Your task to perform on an android device: What's on the menu at Pizza Hut? Image 0: 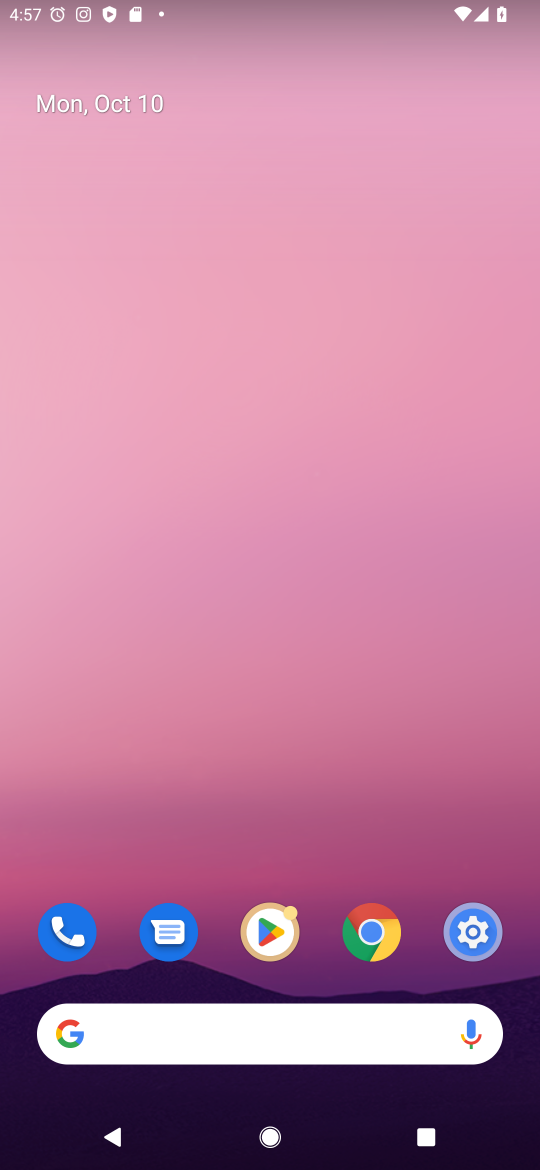
Step 0: press home button
Your task to perform on an android device: What's on the menu at Pizza Hut? Image 1: 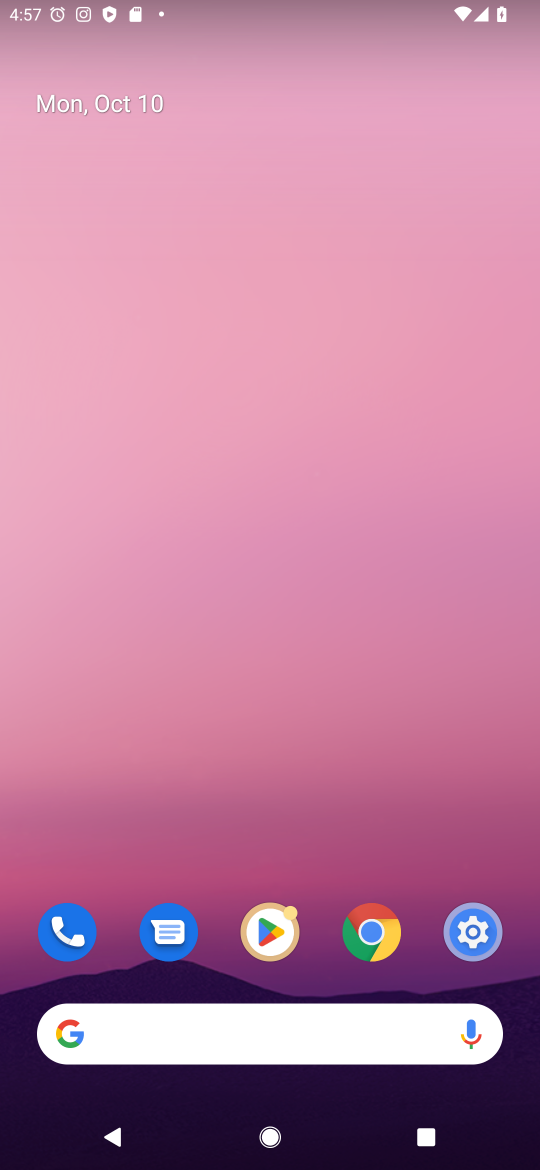
Step 1: click (272, 1036)
Your task to perform on an android device: What's on the menu at Pizza Hut? Image 2: 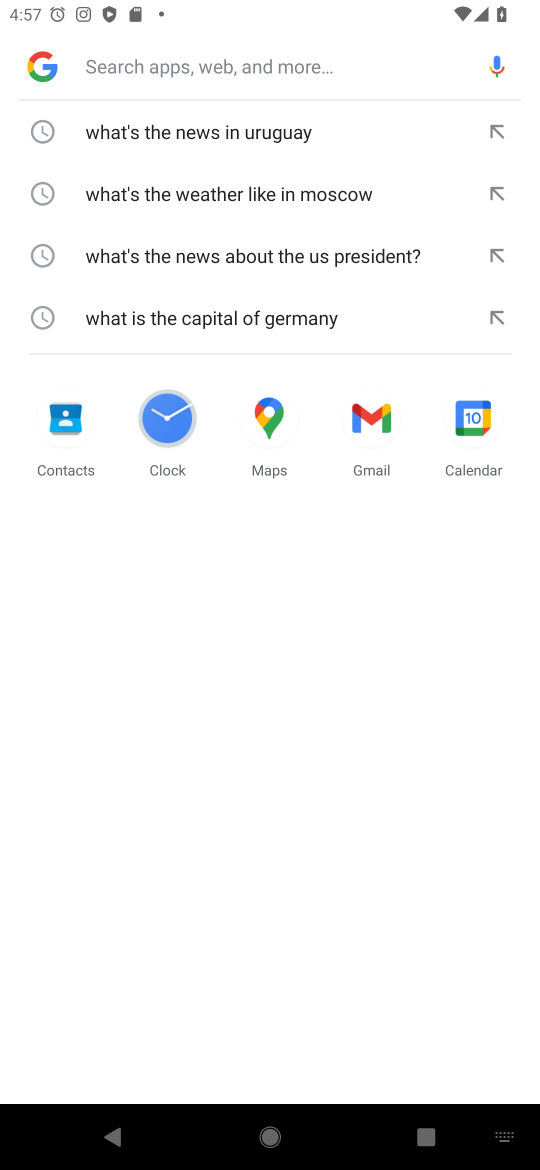
Step 2: type "What's on the menu at Pizza Hut"
Your task to perform on an android device: What's on the menu at Pizza Hut? Image 3: 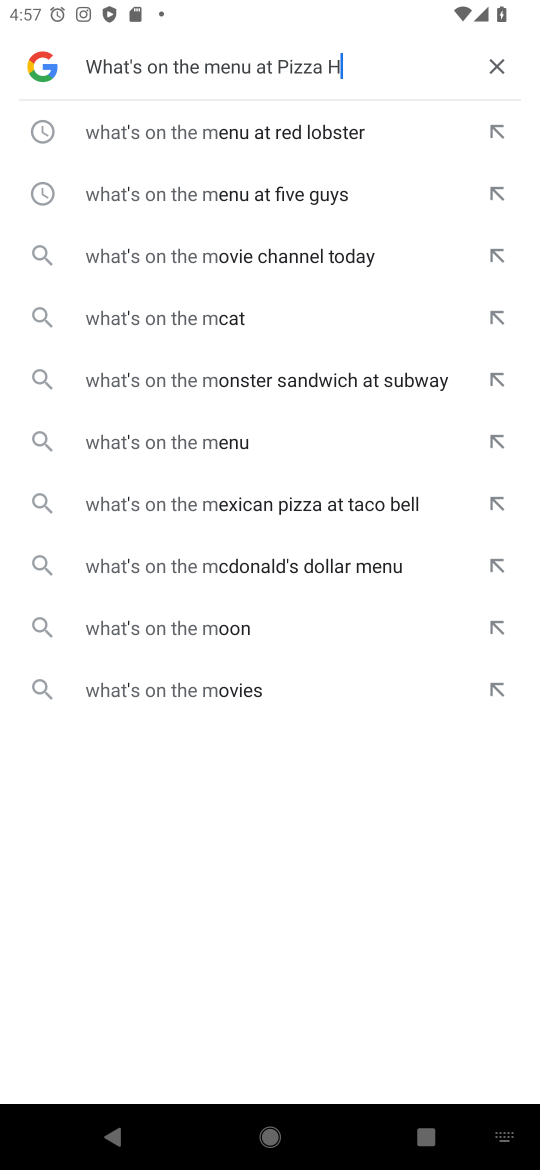
Step 3: press enter
Your task to perform on an android device: What's on the menu at Pizza Hut? Image 4: 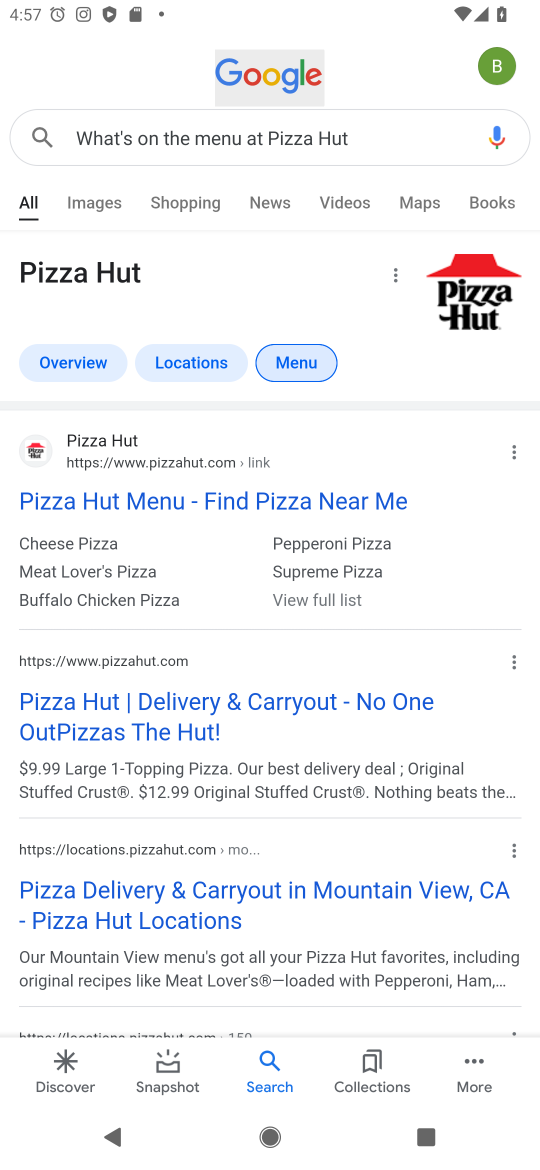
Step 4: click (145, 505)
Your task to perform on an android device: What's on the menu at Pizza Hut? Image 5: 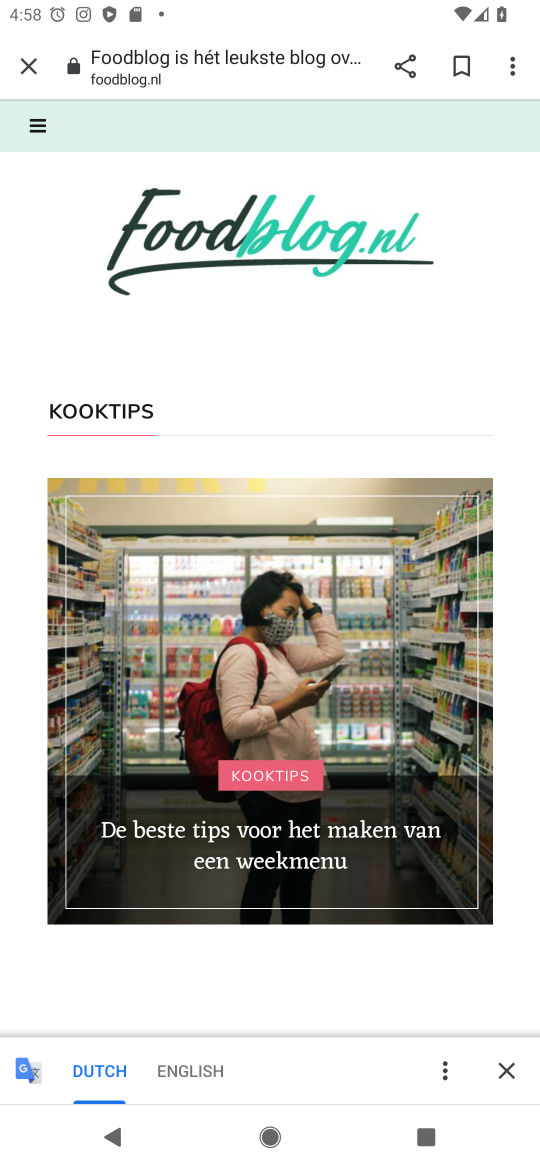
Step 5: drag from (4, 716) to (20, 330)
Your task to perform on an android device: What's on the menu at Pizza Hut? Image 6: 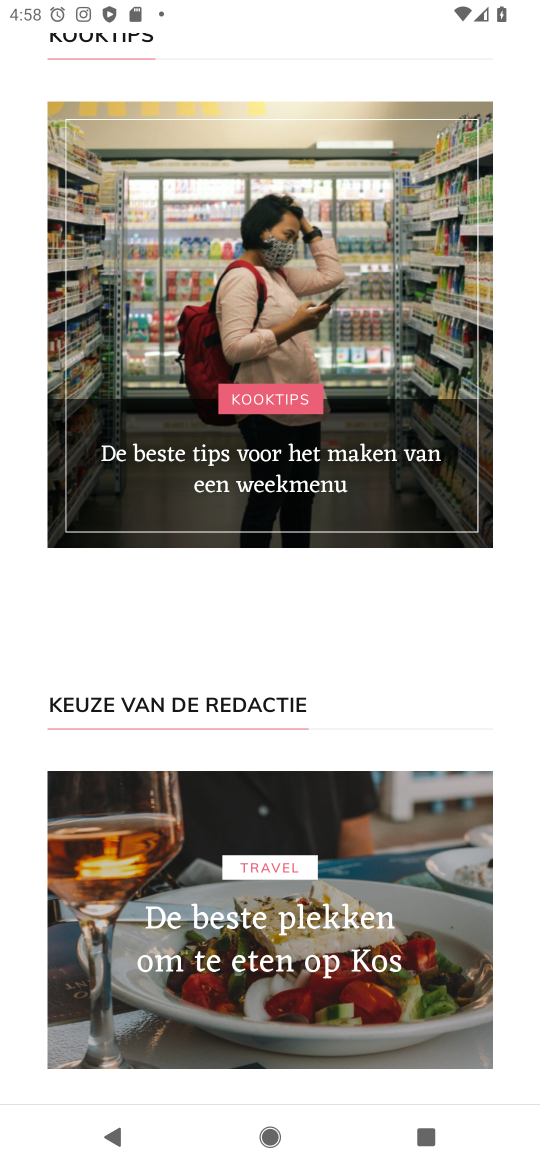
Step 6: drag from (22, 863) to (37, 352)
Your task to perform on an android device: What's on the menu at Pizza Hut? Image 7: 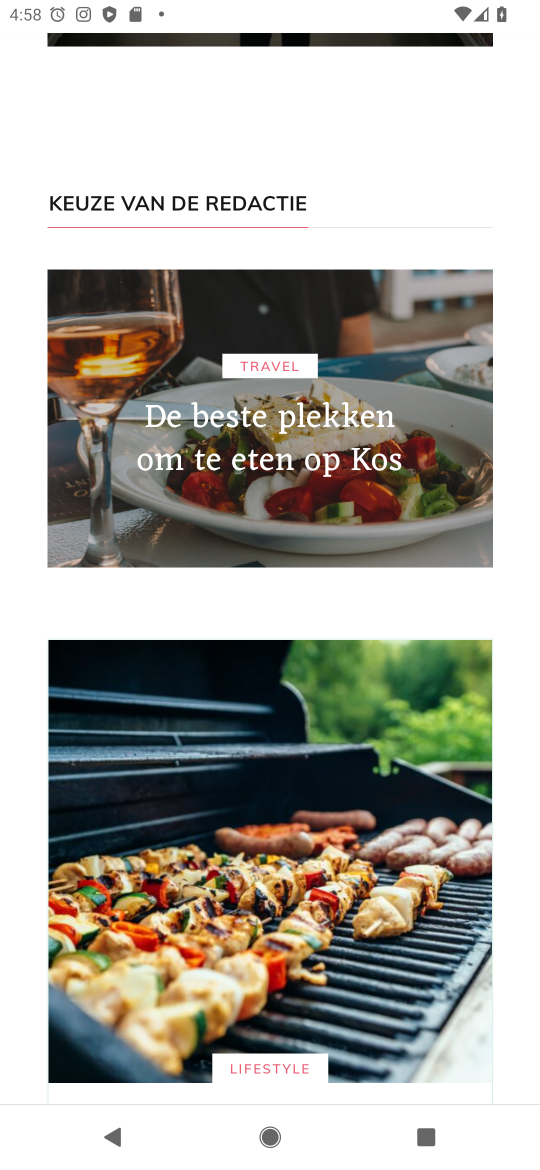
Step 7: drag from (9, 822) to (41, 378)
Your task to perform on an android device: What's on the menu at Pizza Hut? Image 8: 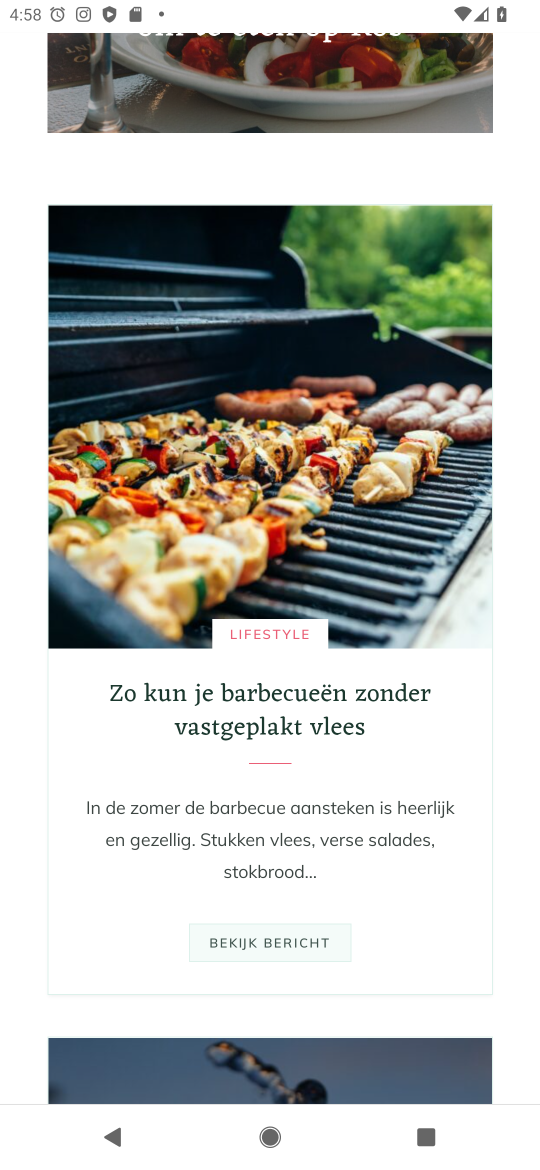
Step 8: press back button
Your task to perform on an android device: What's on the menu at Pizza Hut? Image 9: 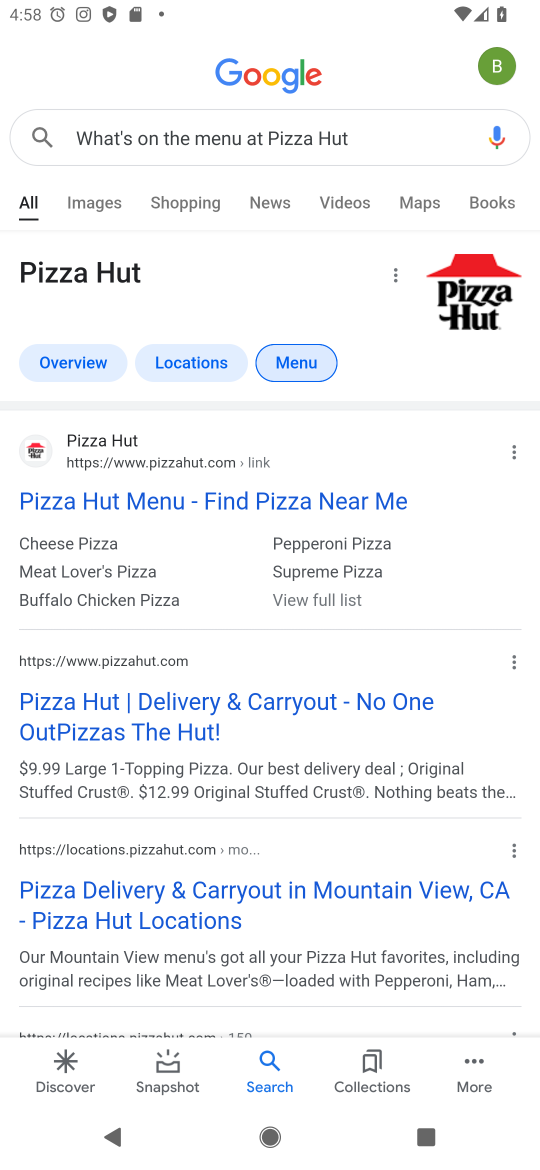
Step 9: click (303, 361)
Your task to perform on an android device: What's on the menu at Pizza Hut? Image 10: 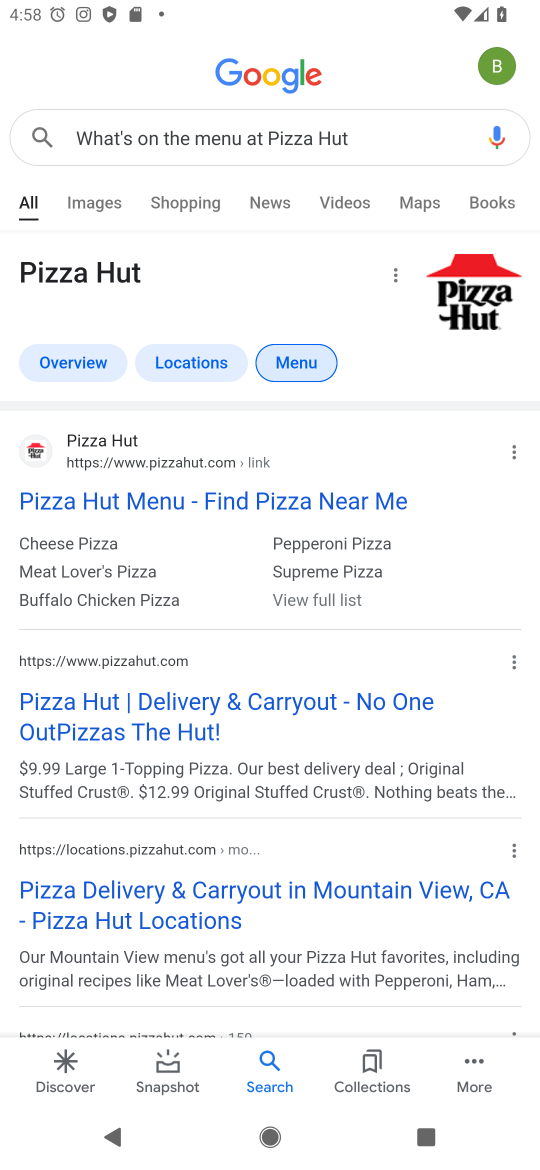
Step 10: click (306, 360)
Your task to perform on an android device: What's on the menu at Pizza Hut? Image 11: 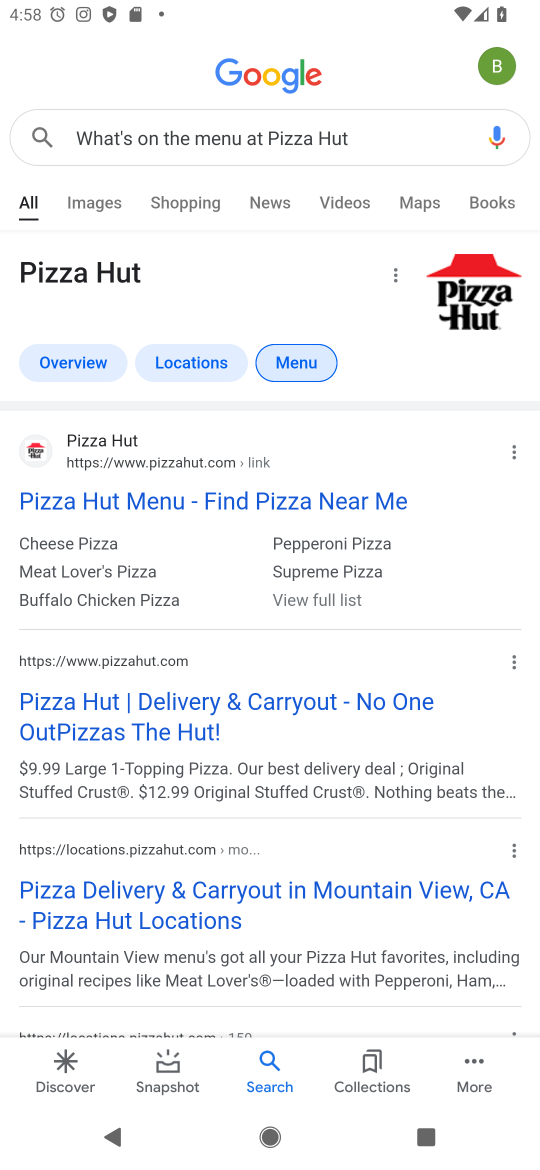
Step 11: task complete